Your task to perform on an android device: Open internet settings Image 0: 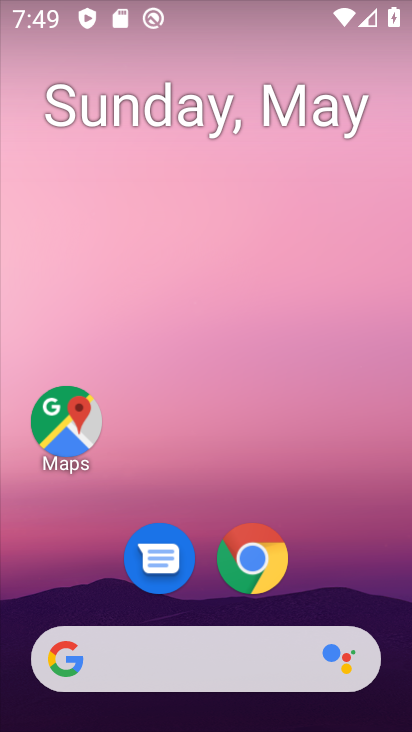
Step 0: drag from (306, 512) to (288, 227)
Your task to perform on an android device: Open internet settings Image 1: 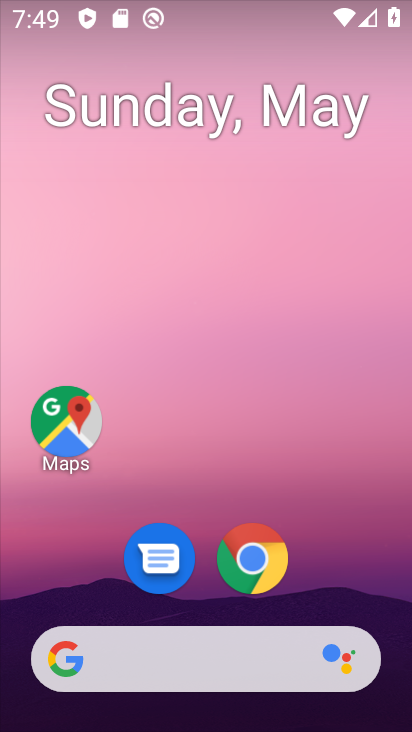
Step 1: drag from (248, 622) to (278, 201)
Your task to perform on an android device: Open internet settings Image 2: 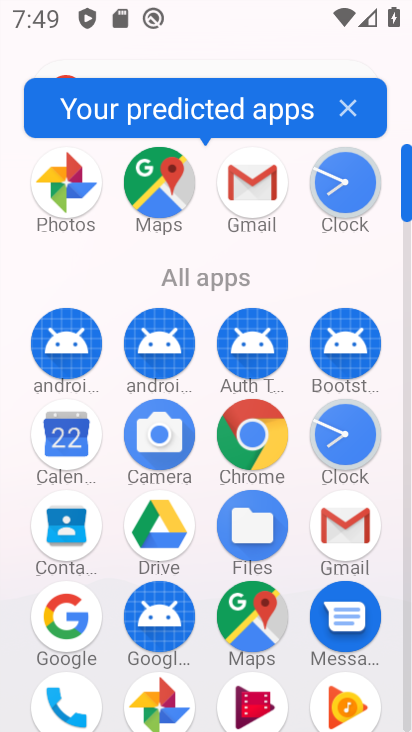
Step 2: drag from (197, 566) to (266, 171)
Your task to perform on an android device: Open internet settings Image 3: 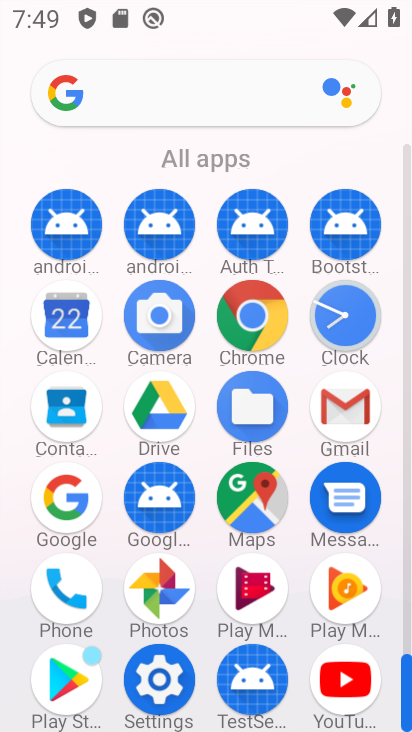
Step 3: click (172, 648)
Your task to perform on an android device: Open internet settings Image 4: 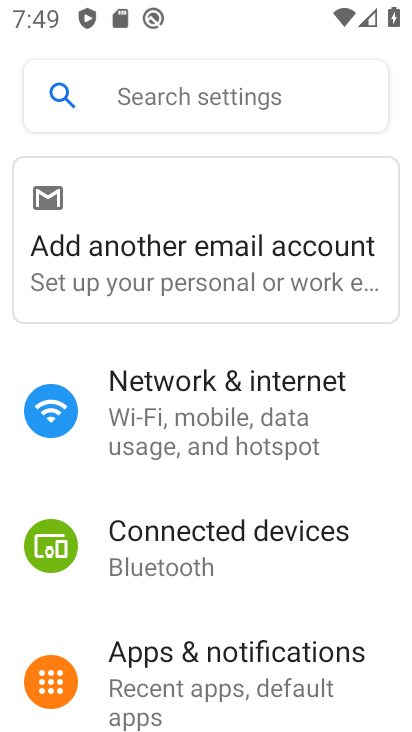
Step 4: click (204, 273)
Your task to perform on an android device: Open internet settings Image 5: 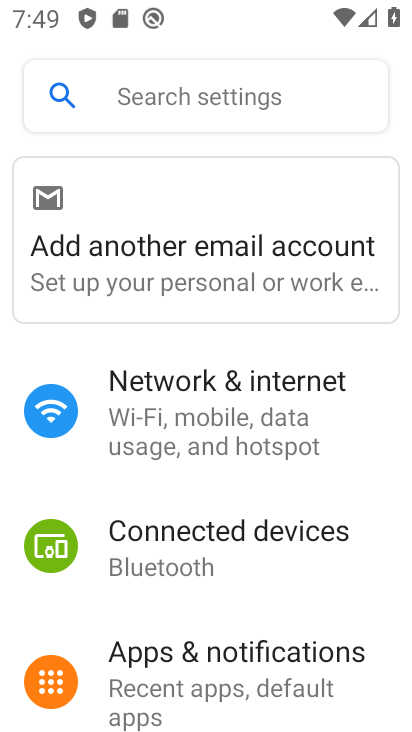
Step 5: click (230, 396)
Your task to perform on an android device: Open internet settings Image 6: 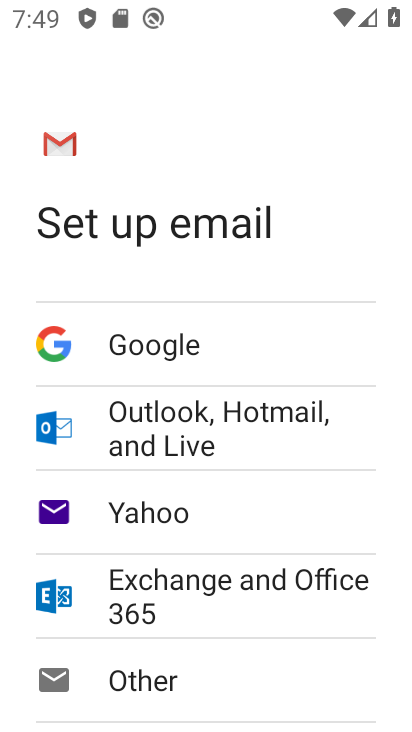
Step 6: press back button
Your task to perform on an android device: Open internet settings Image 7: 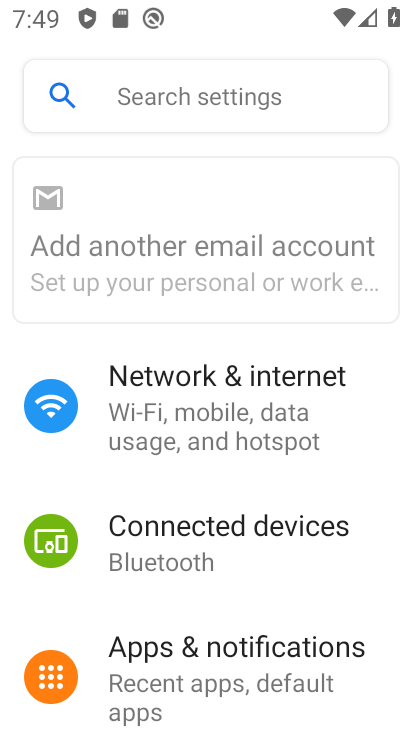
Step 7: click (186, 241)
Your task to perform on an android device: Open internet settings Image 8: 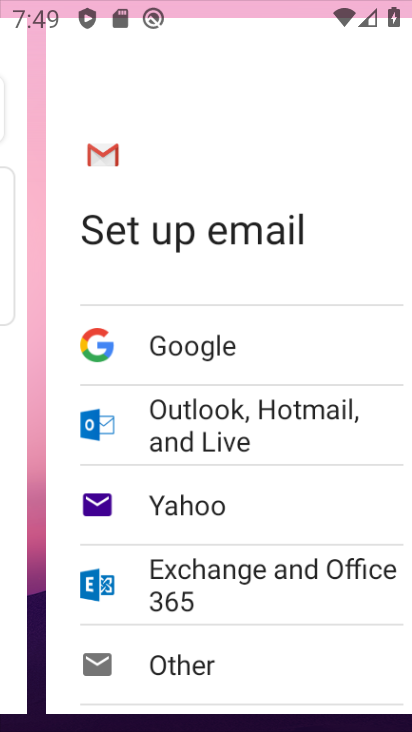
Step 8: click (233, 408)
Your task to perform on an android device: Open internet settings Image 9: 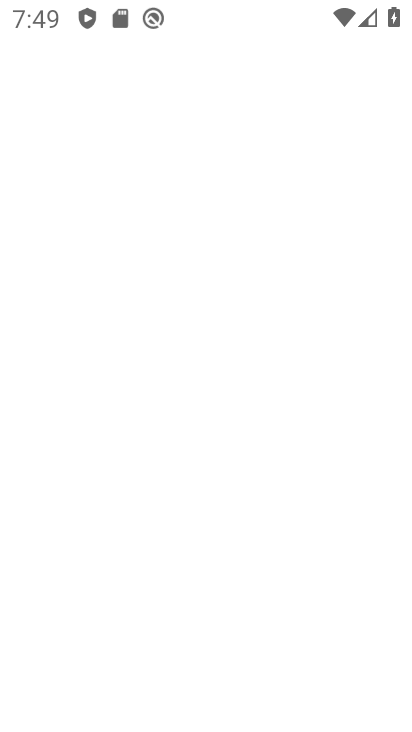
Step 9: press back button
Your task to perform on an android device: Open internet settings Image 10: 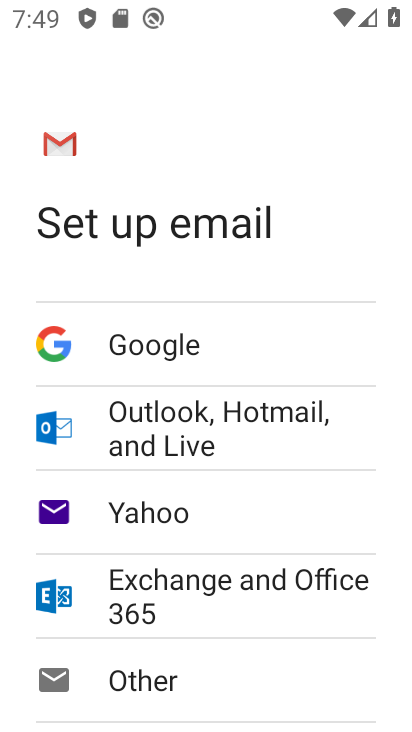
Step 10: press back button
Your task to perform on an android device: Open internet settings Image 11: 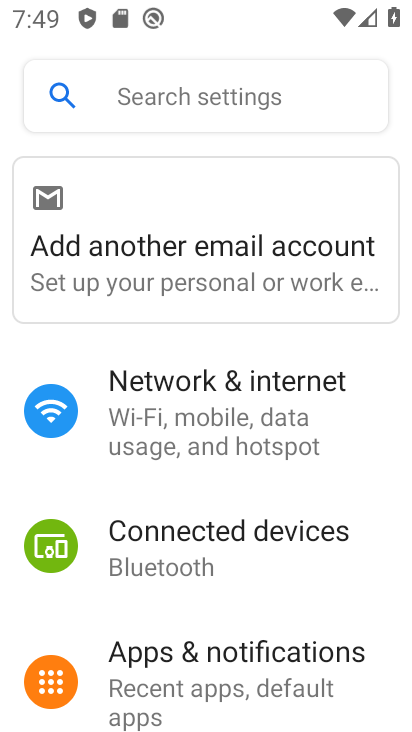
Step 11: click (236, 396)
Your task to perform on an android device: Open internet settings Image 12: 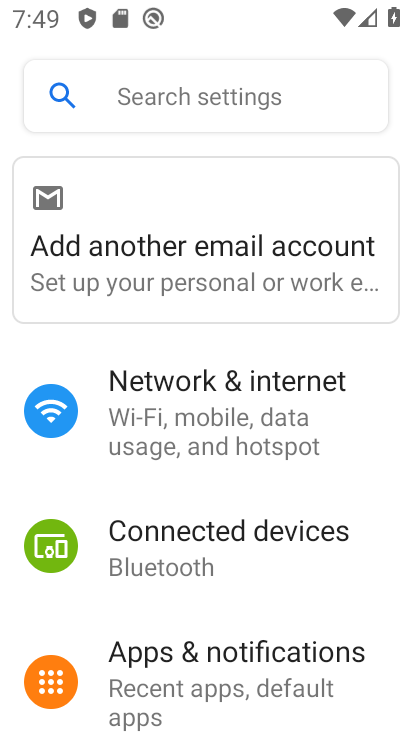
Step 12: click (214, 408)
Your task to perform on an android device: Open internet settings Image 13: 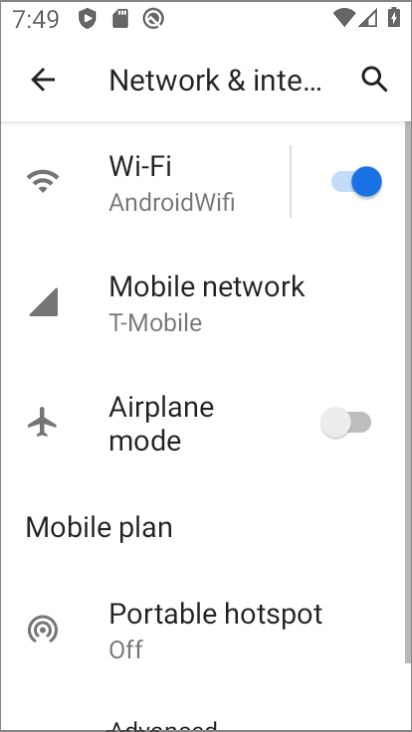
Step 13: task complete